Your task to perform on an android device: toggle data saver in the chrome app Image 0: 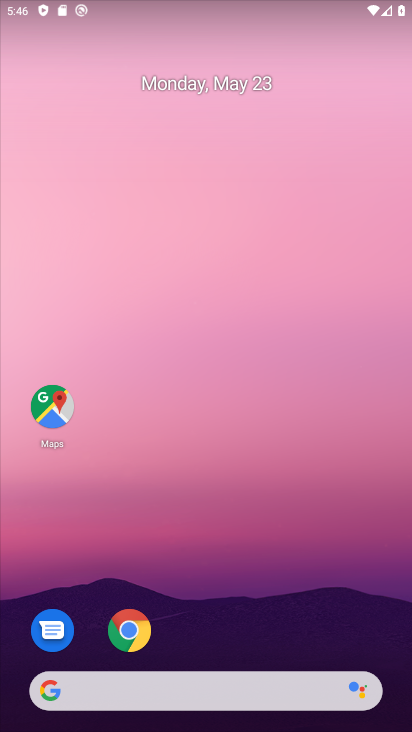
Step 0: drag from (219, 532) to (197, 21)
Your task to perform on an android device: toggle data saver in the chrome app Image 1: 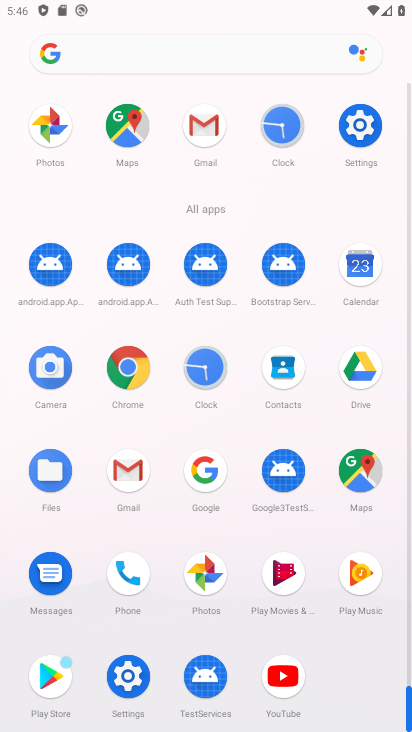
Step 1: drag from (12, 390) to (11, 149)
Your task to perform on an android device: toggle data saver in the chrome app Image 2: 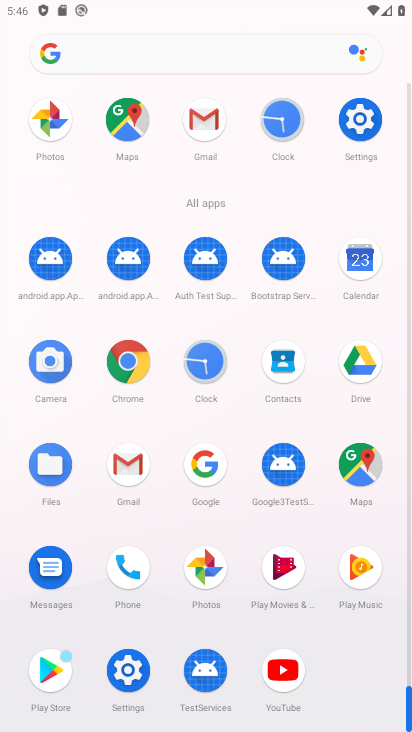
Step 2: click (125, 355)
Your task to perform on an android device: toggle data saver in the chrome app Image 3: 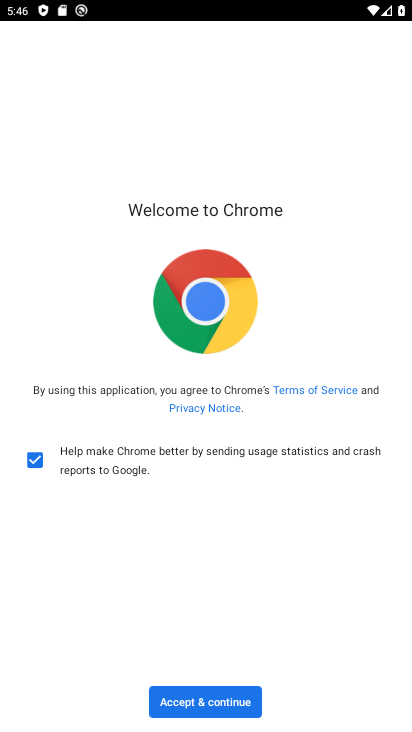
Step 3: click (185, 703)
Your task to perform on an android device: toggle data saver in the chrome app Image 4: 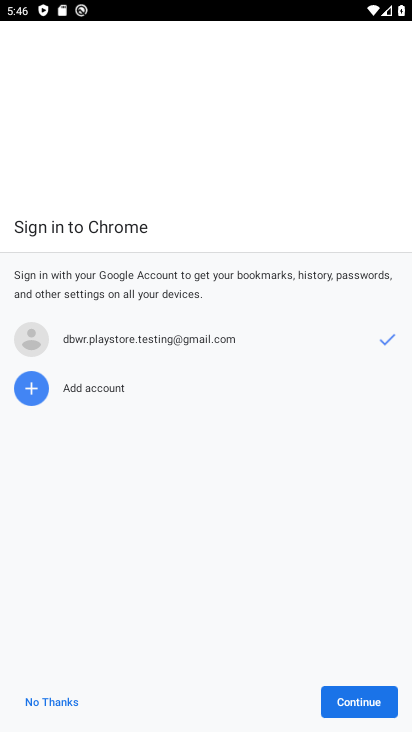
Step 4: click (358, 707)
Your task to perform on an android device: toggle data saver in the chrome app Image 5: 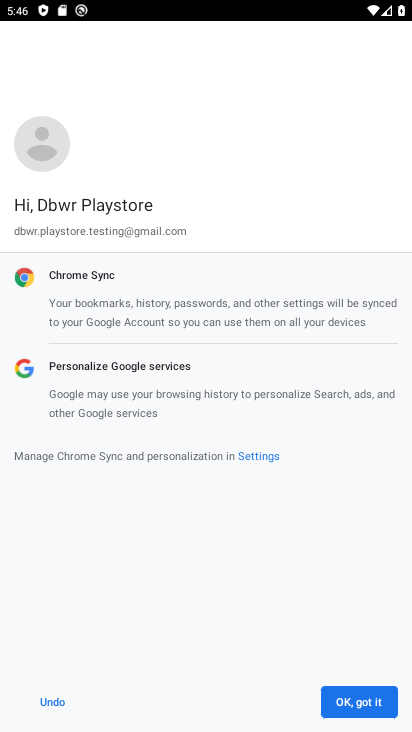
Step 5: click (359, 706)
Your task to perform on an android device: toggle data saver in the chrome app Image 6: 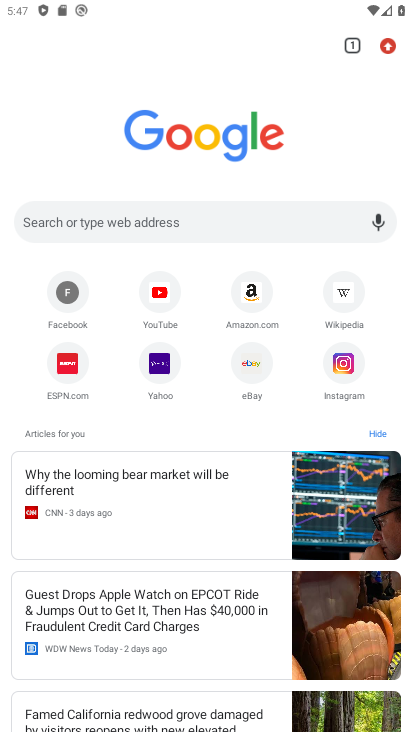
Step 6: drag from (384, 35) to (245, 433)
Your task to perform on an android device: toggle data saver in the chrome app Image 7: 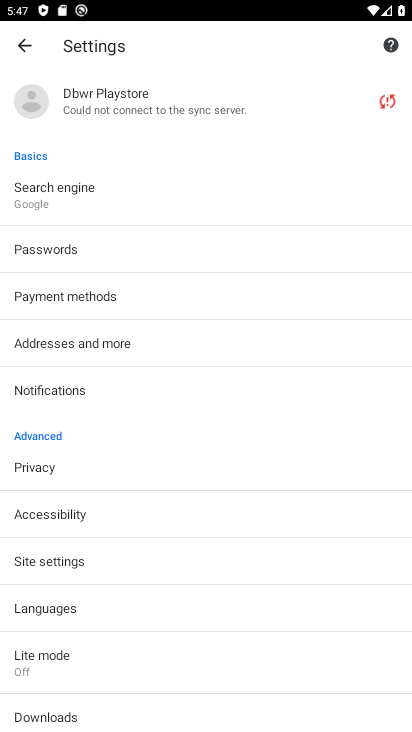
Step 7: drag from (97, 658) to (138, 349)
Your task to perform on an android device: toggle data saver in the chrome app Image 8: 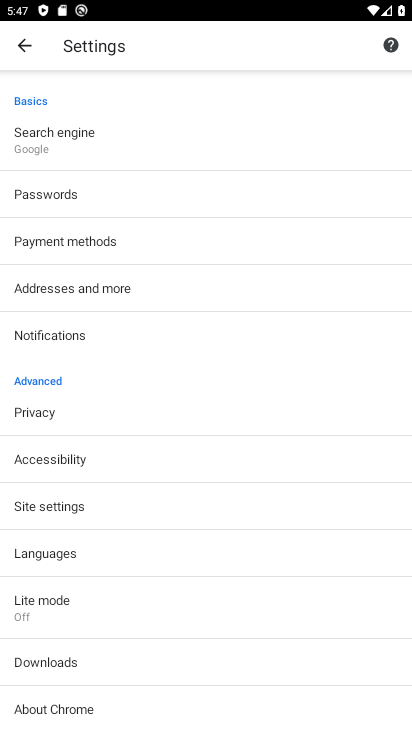
Step 8: drag from (161, 612) to (182, 235)
Your task to perform on an android device: toggle data saver in the chrome app Image 9: 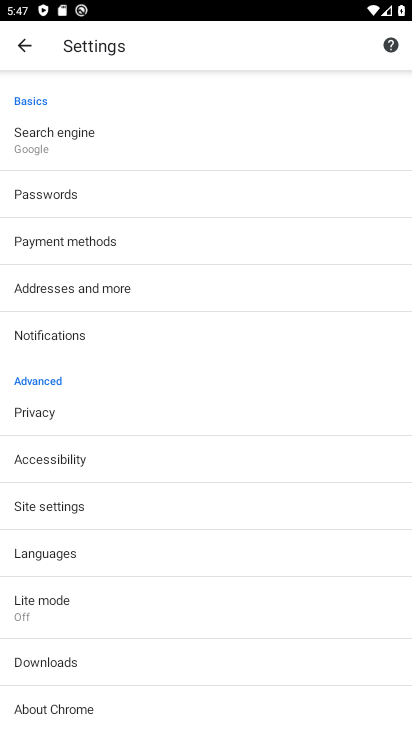
Step 9: click (54, 607)
Your task to perform on an android device: toggle data saver in the chrome app Image 10: 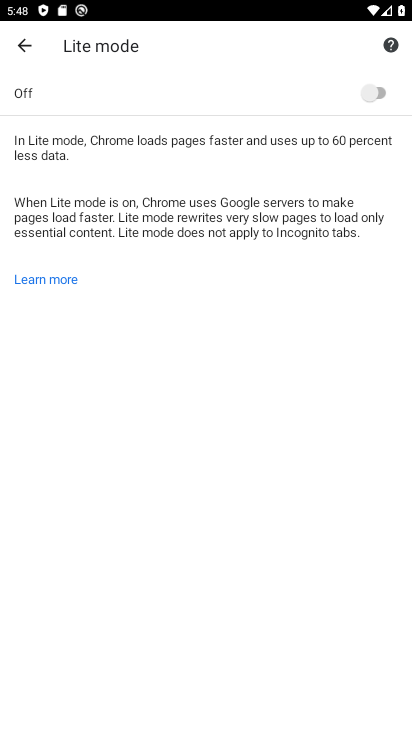
Step 10: click (365, 89)
Your task to perform on an android device: toggle data saver in the chrome app Image 11: 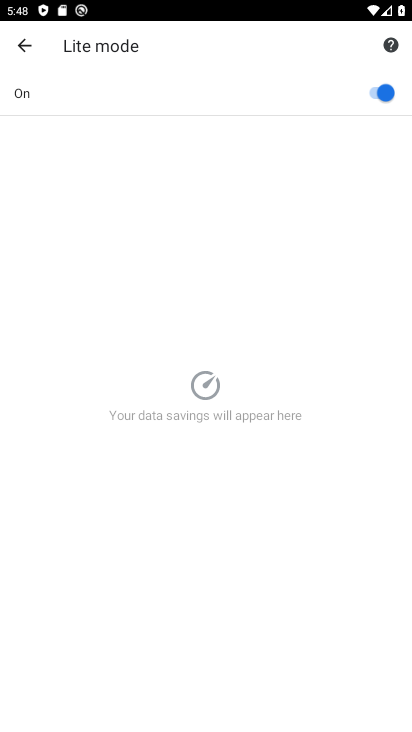
Step 11: task complete